Your task to perform on an android device: turn on showing notifications on the lock screen Image 0: 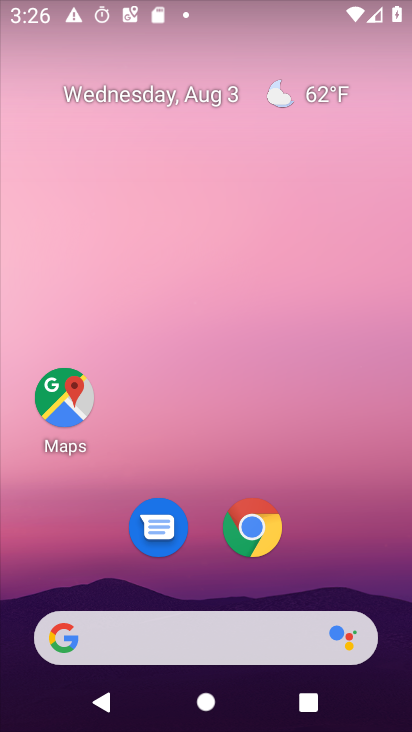
Step 0: press home button
Your task to perform on an android device: turn on showing notifications on the lock screen Image 1: 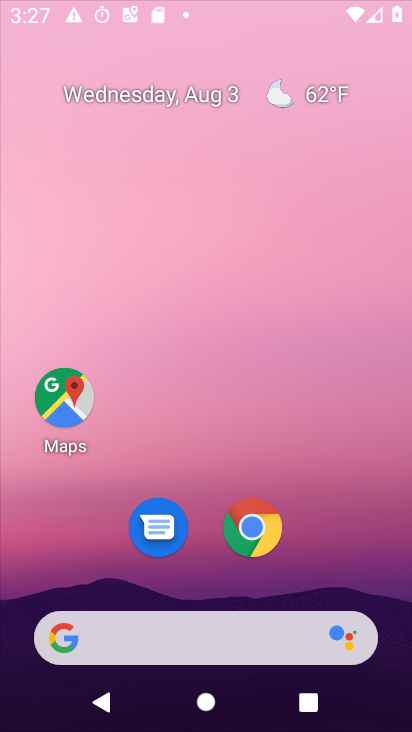
Step 1: drag from (331, 545) to (282, 101)
Your task to perform on an android device: turn on showing notifications on the lock screen Image 2: 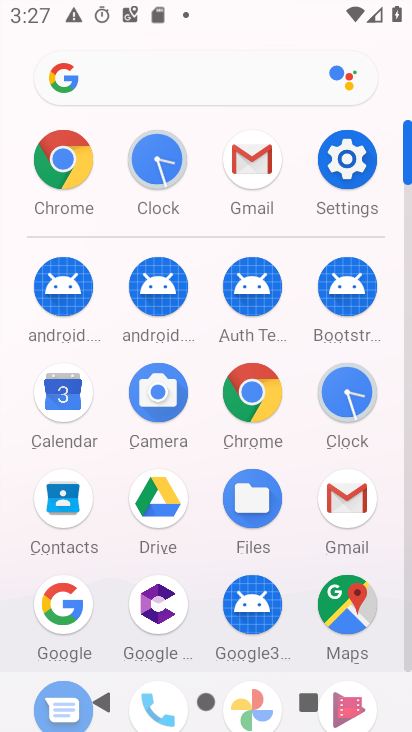
Step 2: click (343, 166)
Your task to perform on an android device: turn on showing notifications on the lock screen Image 3: 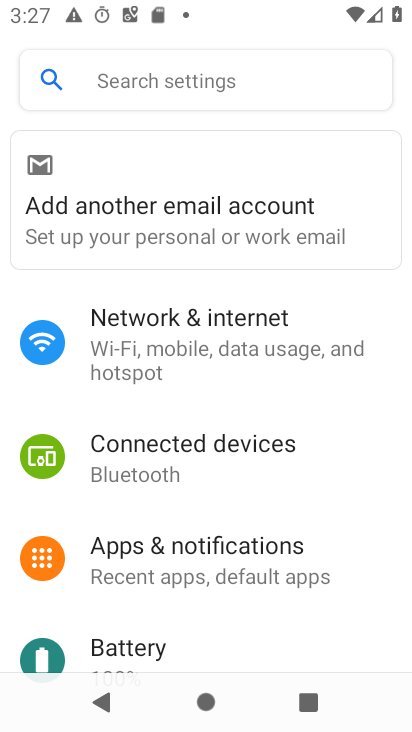
Step 3: drag from (280, 628) to (273, 168)
Your task to perform on an android device: turn on showing notifications on the lock screen Image 4: 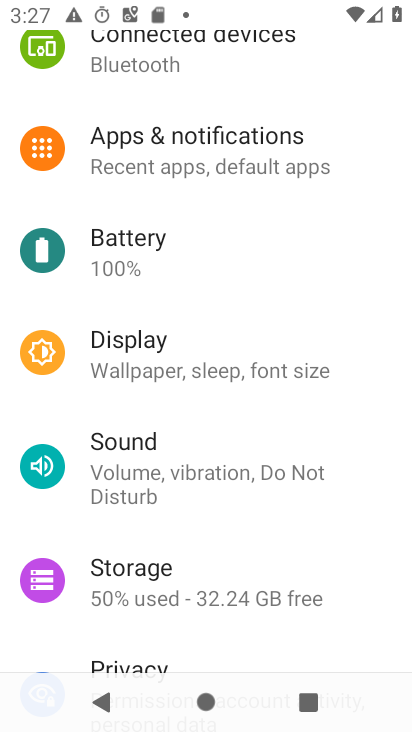
Step 4: click (247, 151)
Your task to perform on an android device: turn on showing notifications on the lock screen Image 5: 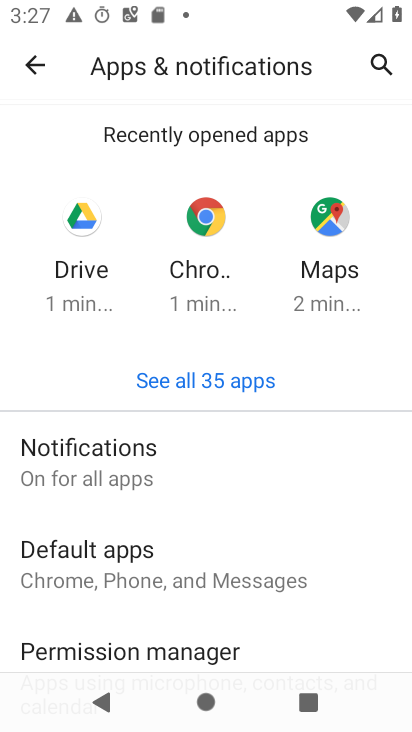
Step 5: click (127, 454)
Your task to perform on an android device: turn on showing notifications on the lock screen Image 6: 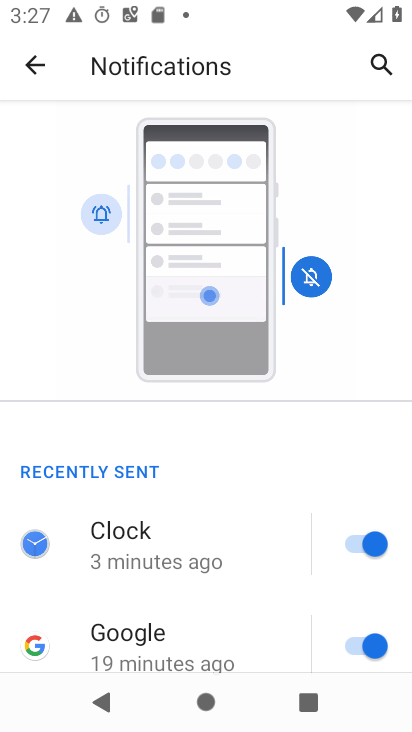
Step 6: drag from (242, 496) to (283, 118)
Your task to perform on an android device: turn on showing notifications on the lock screen Image 7: 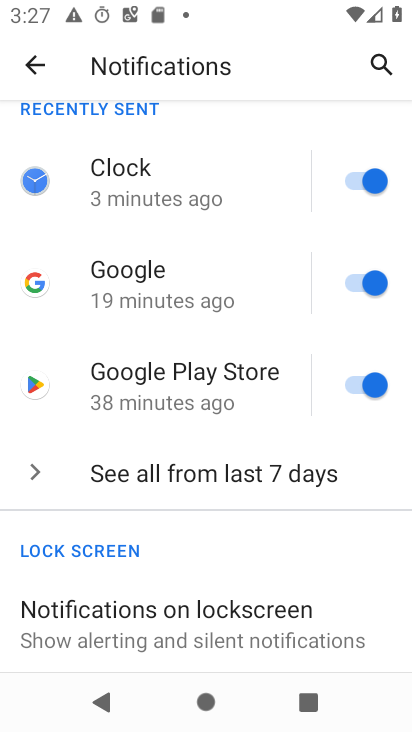
Step 7: click (235, 606)
Your task to perform on an android device: turn on showing notifications on the lock screen Image 8: 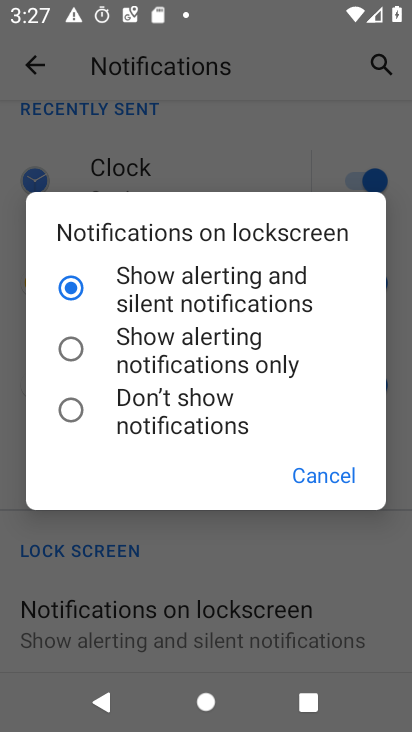
Step 8: click (171, 361)
Your task to perform on an android device: turn on showing notifications on the lock screen Image 9: 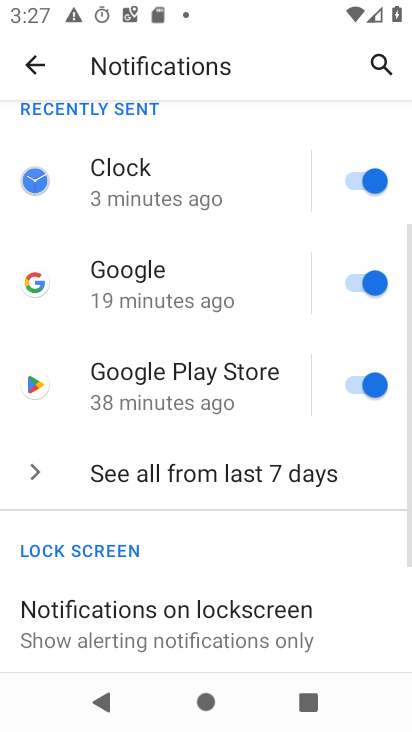
Step 9: task complete